Your task to perform on an android device: remove spam from my inbox in the gmail app Image 0: 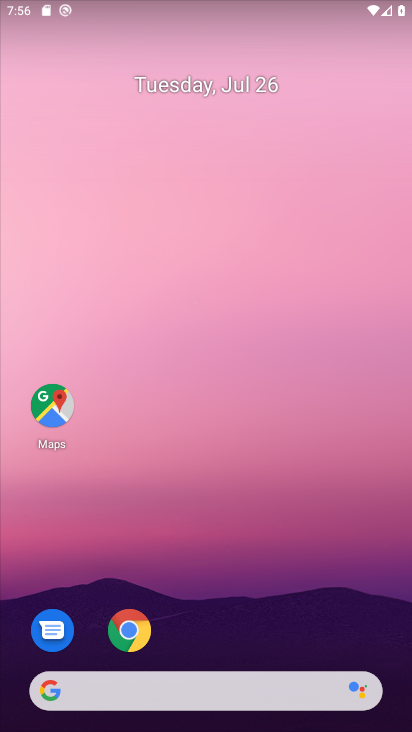
Step 0: drag from (401, 711) to (365, 159)
Your task to perform on an android device: remove spam from my inbox in the gmail app Image 1: 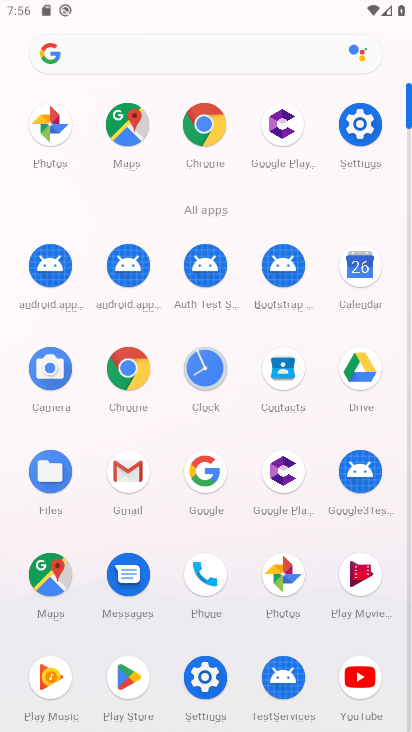
Step 1: click (134, 479)
Your task to perform on an android device: remove spam from my inbox in the gmail app Image 2: 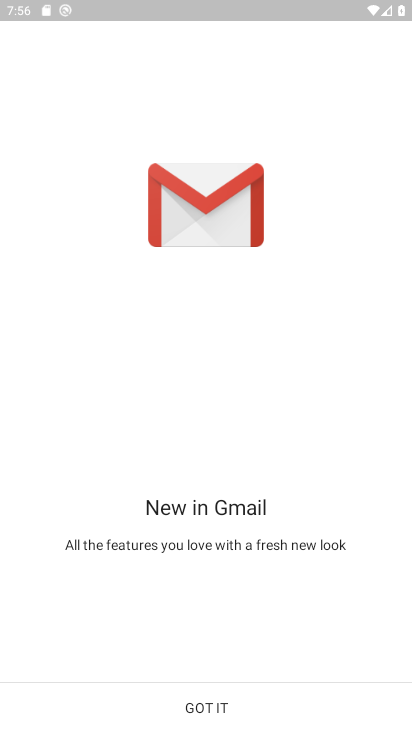
Step 2: click (208, 688)
Your task to perform on an android device: remove spam from my inbox in the gmail app Image 3: 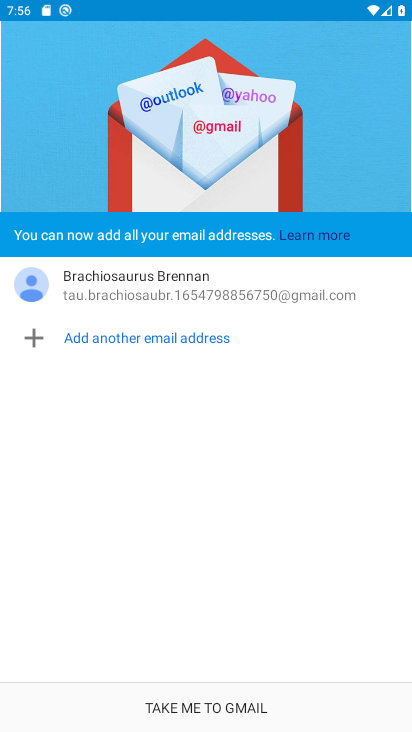
Step 3: click (205, 700)
Your task to perform on an android device: remove spam from my inbox in the gmail app Image 4: 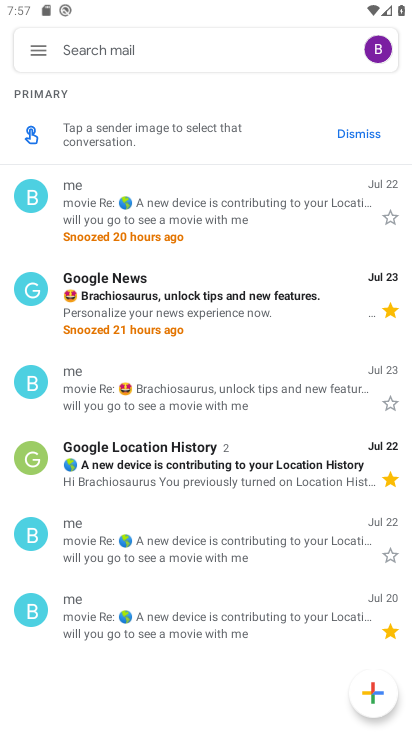
Step 4: click (32, 47)
Your task to perform on an android device: remove spam from my inbox in the gmail app Image 5: 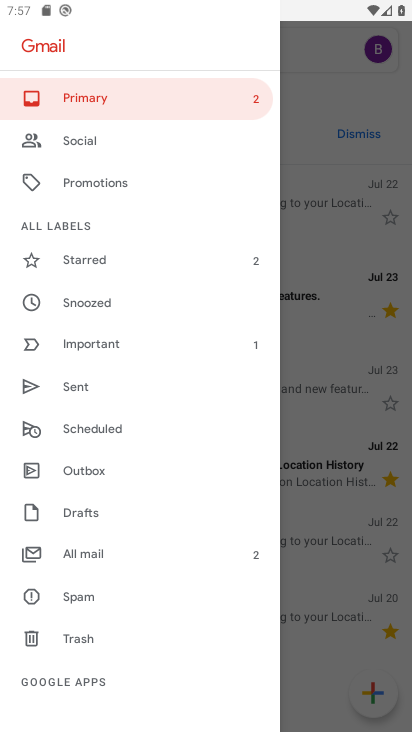
Step 5: click (77, 595)
Your task to perform on an android device: remove spam from my inbox in the gmail app Image 6: 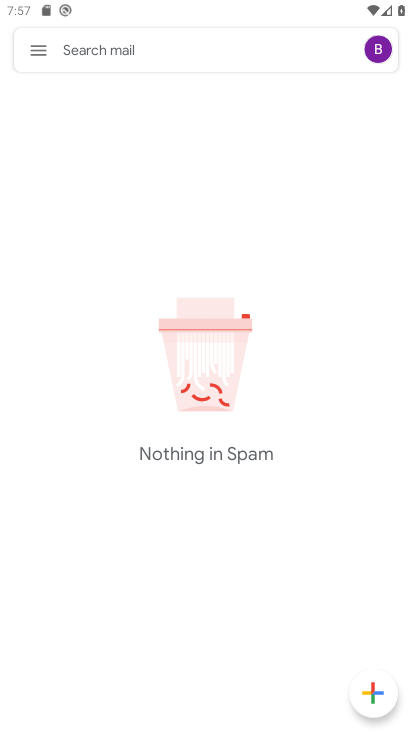
Step 6: task complete